Your task to perform on an android device: Open my contact list Image 0: 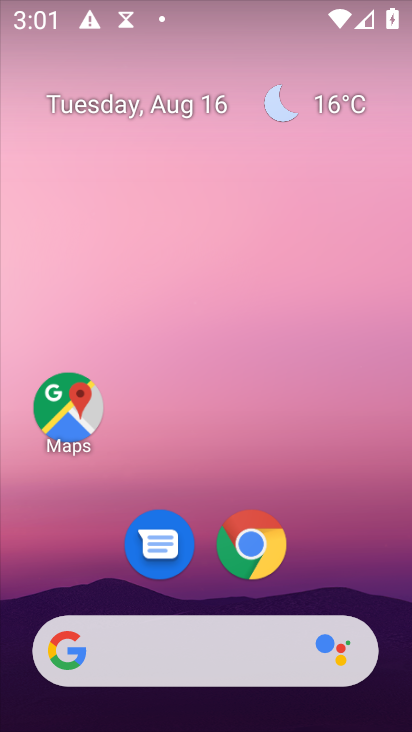
Step 0: drag from (181, 663) to (213, 68)
Your task to perform on an android device: Open my contact list Image 1: 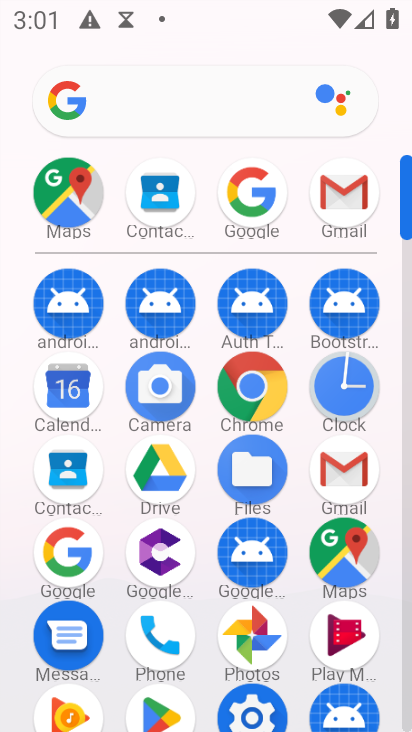
Step 1: click (66, 470)
Your task to perform on an android device: Open my contact list Image 2: 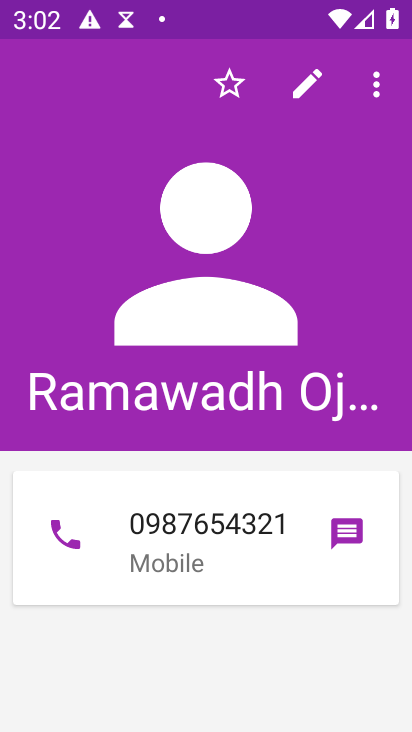
Step 2: task complete